Your task to perform on an android device: open app "Truecaller" (install if not already installed) and enter user name: "coauthor@gmail.com" and password: "quadrangle" Image 0: 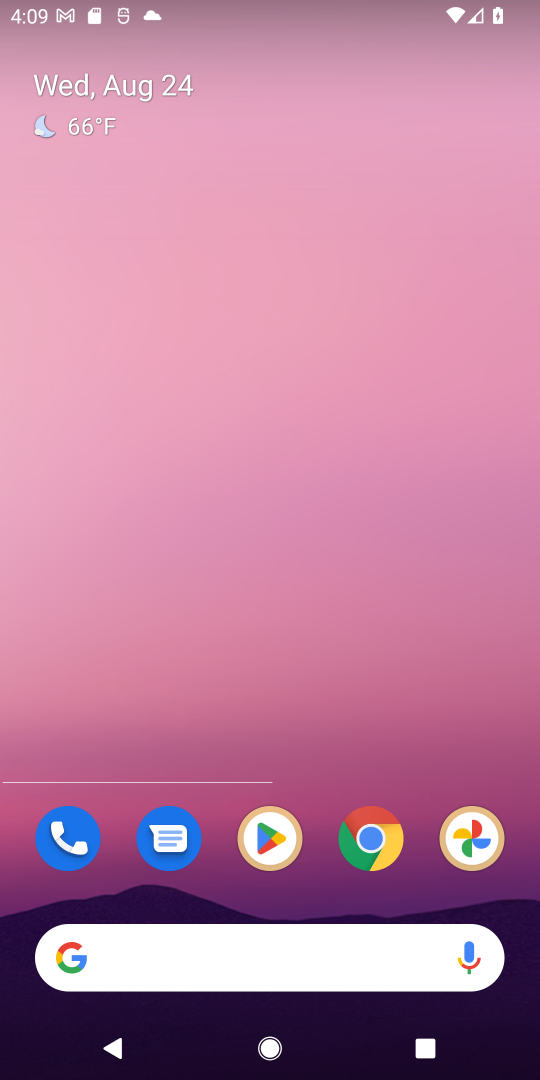
Step 0: press home button
Your task to perform on an android device: open app "Truecaller" (install if not already installed) and enter user name: "coauthor@gmail.com" and password: "quadrangle" Image 1: 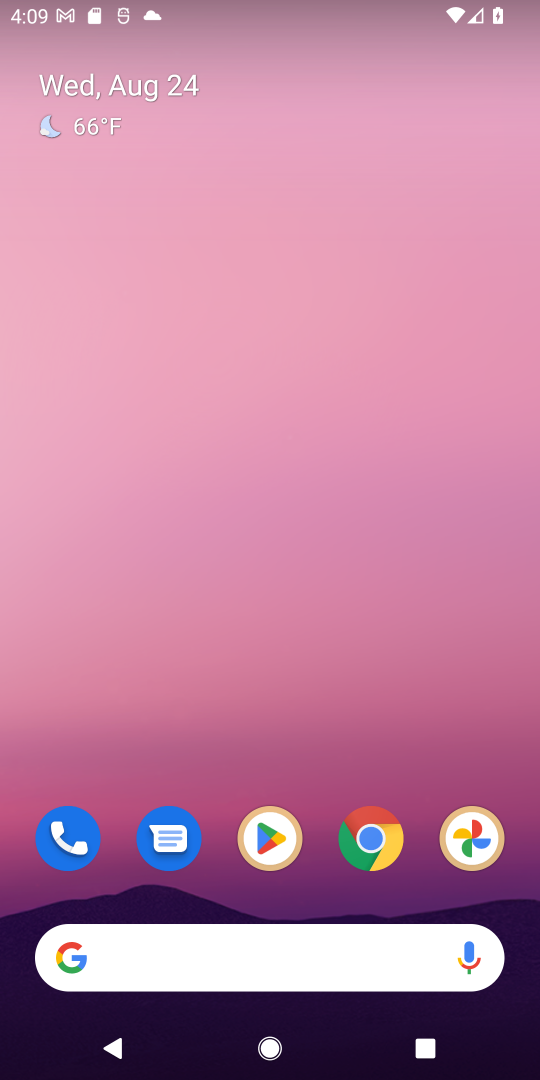
Step 1: click (264, 825)
Your task to perform on an android device: open app "Truecaller" (install if not already installed) and enter user name: "coauthor@gmail.com" and password: "quadrangle" Image 2: 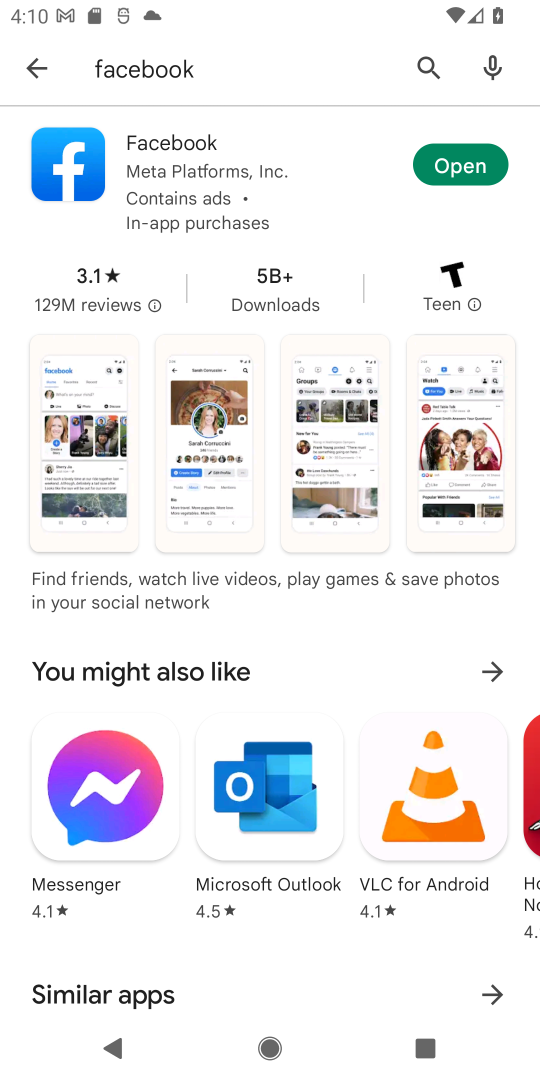
Step 2: click (426, 68)
Your task to perform on an android device: open app "Truecaller" (install if not already installed) and enter user name: "coauthor@gmail.com" and password: "quadrangle" Image 3: 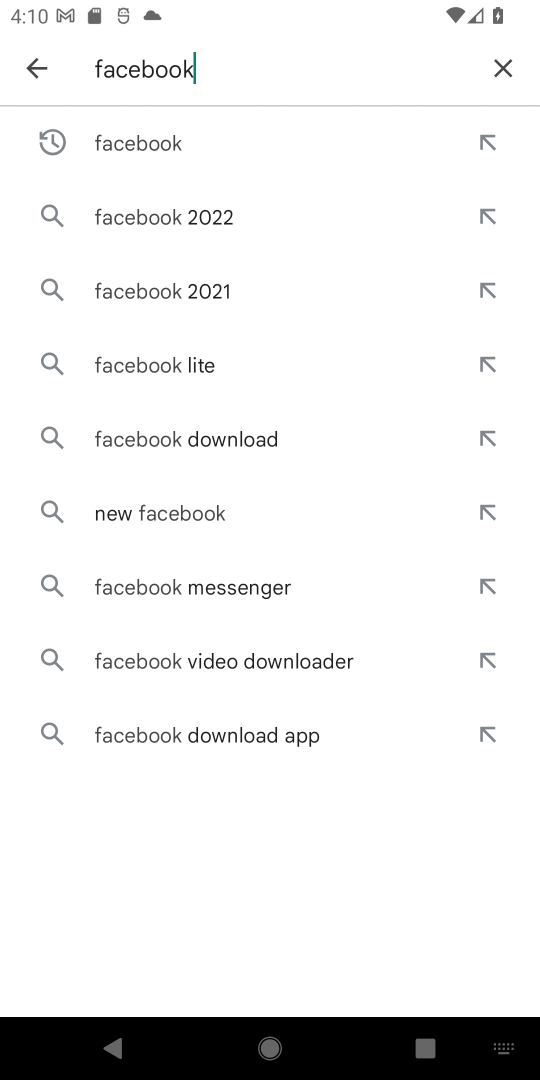
Step 3: click (500, 70)
Your task to perform on an android device: open app "Truecaller" (install if not already installed) and enter user name: "coauthor@gmail.com" and password: "quadrangle" Image 4: 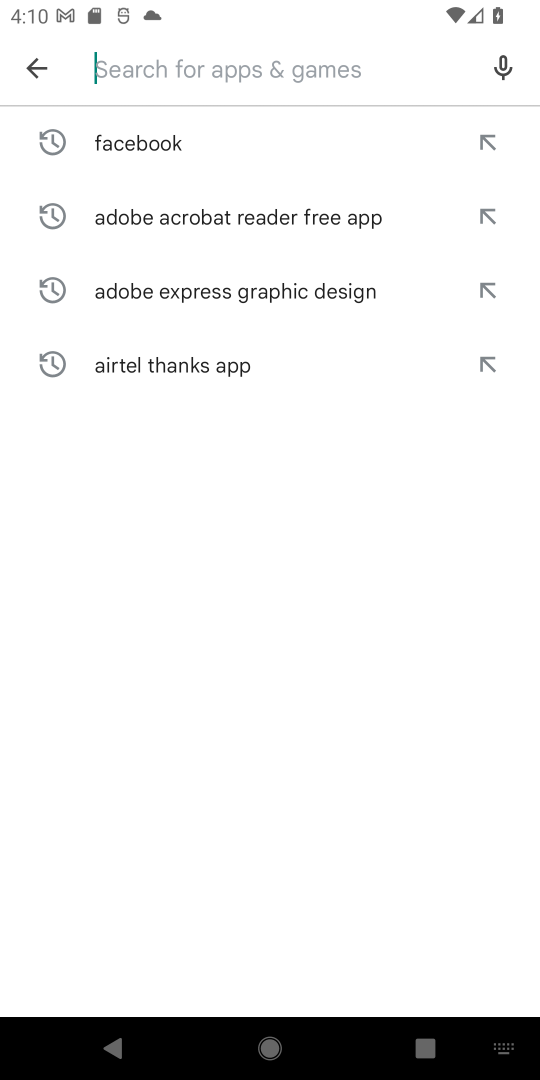
Step 4: type "Truecaller"
Your task to perform on an android device: open app "Truecaller" (install if not already installed) and enter user name: "coauthor@gmail.com" and password: "quadrangle" Image 5: 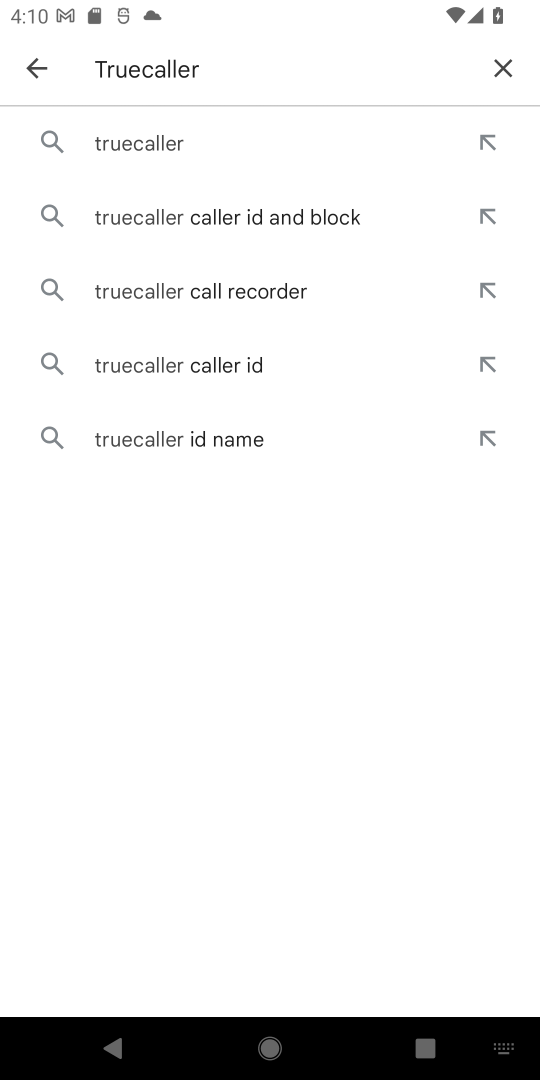
Step 5: click (194, 135)
Your task to perform on an android device: open app "Truecaller" (install if not already installed) and enter user name: "coauthor@gmail.com" and password: "quadrangle" Image 6: 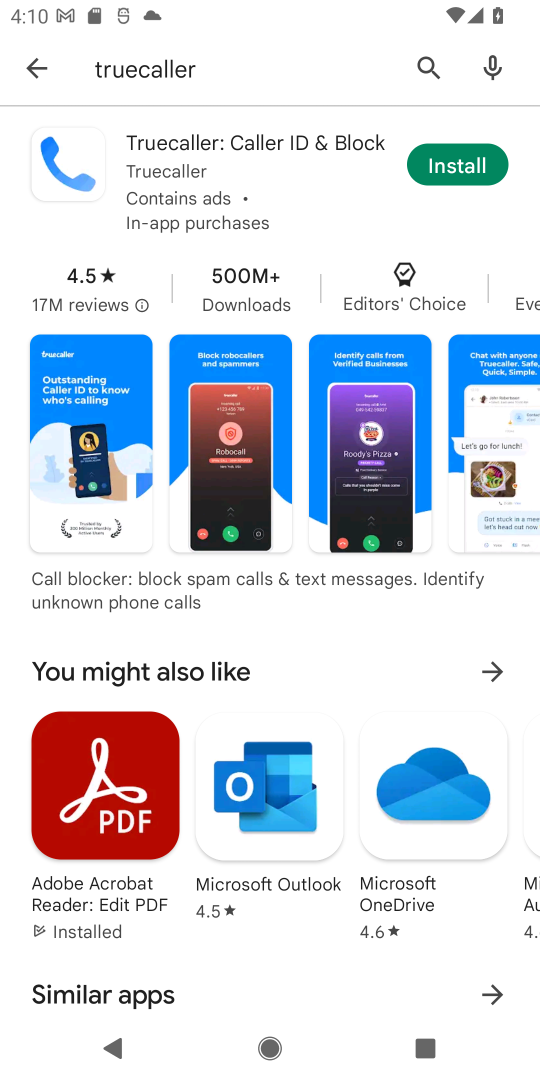
Step 6: click (459, 157)
Your task to perform on an android device: open app "Truecaller" (install if not already installed) and enter user name: "coauthor@gmail.com" and password: "quadrangle" Image 7: 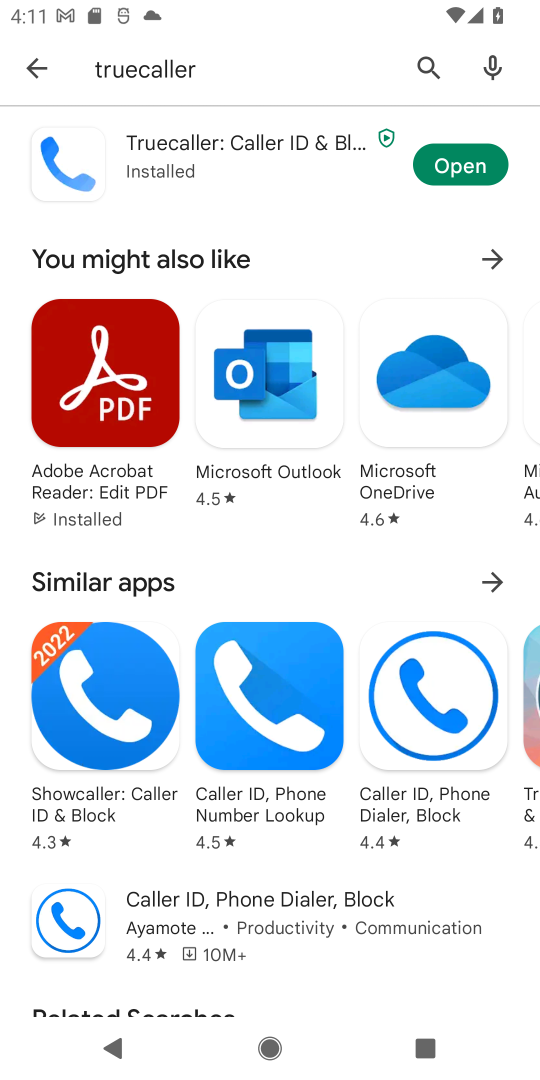
Step 7: click (465, 158)
Your task to perform on an android device: open app "Truecaller" (install if not already installed) and enter user name: "coauthor@gmail.com" and password: "quadrangle" Image 8: 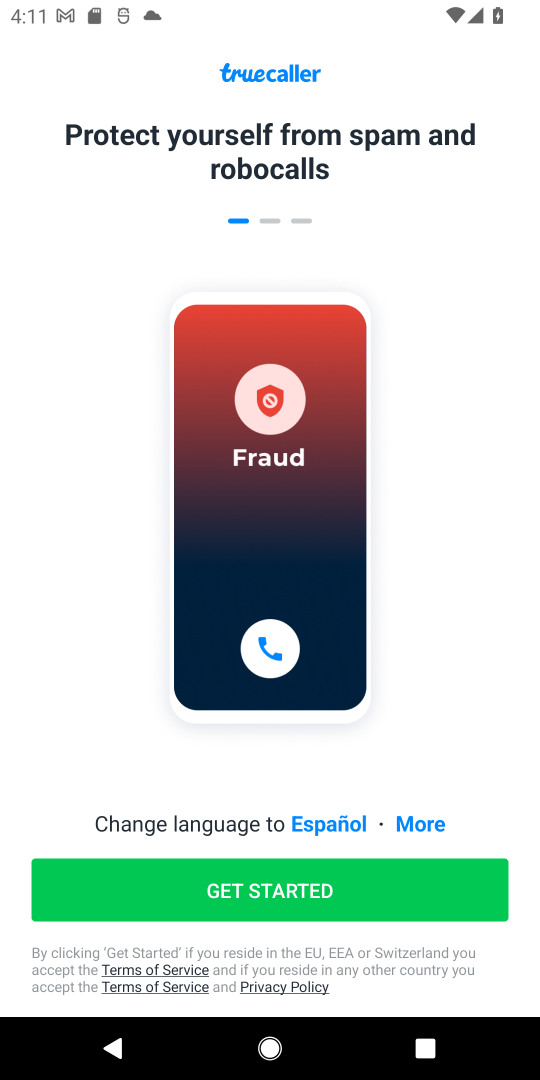
Step 8: click (281, 896)
Your task to perform on an android device: open app "Truecaller" (install if not already installed) and enter user name: "coauthor@gmail.com" and password: "quadrangle" Image 9: 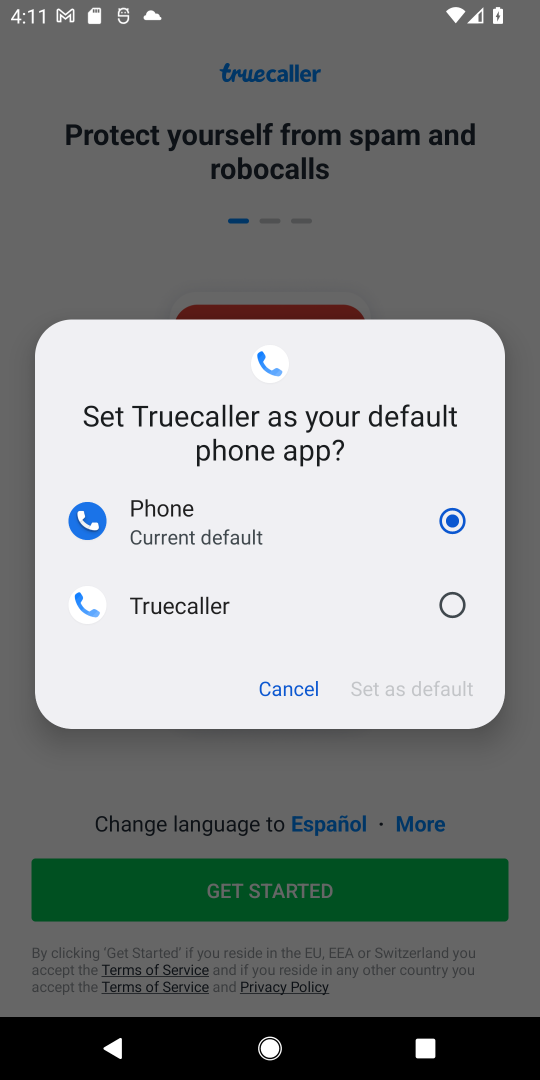
Step 9: click (440, 602)
Your task to perform on an android device: open app "Truecaller" (install if not already installed) and enter user name: "coauthor@gmail.com" and password: "quadrangle" Image 10: 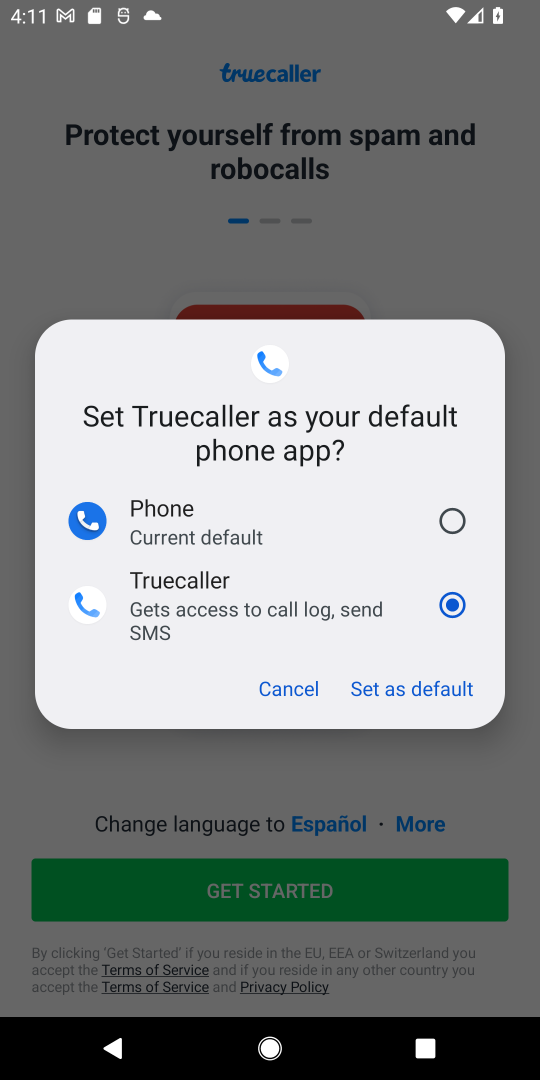
Step 10: click (430, 687)
Your task to perform on an android device: open app "Truecaller" (install if not already installed) and enter user name: "coauthor@gmail.com" and password: "quadrangle" Image 11: 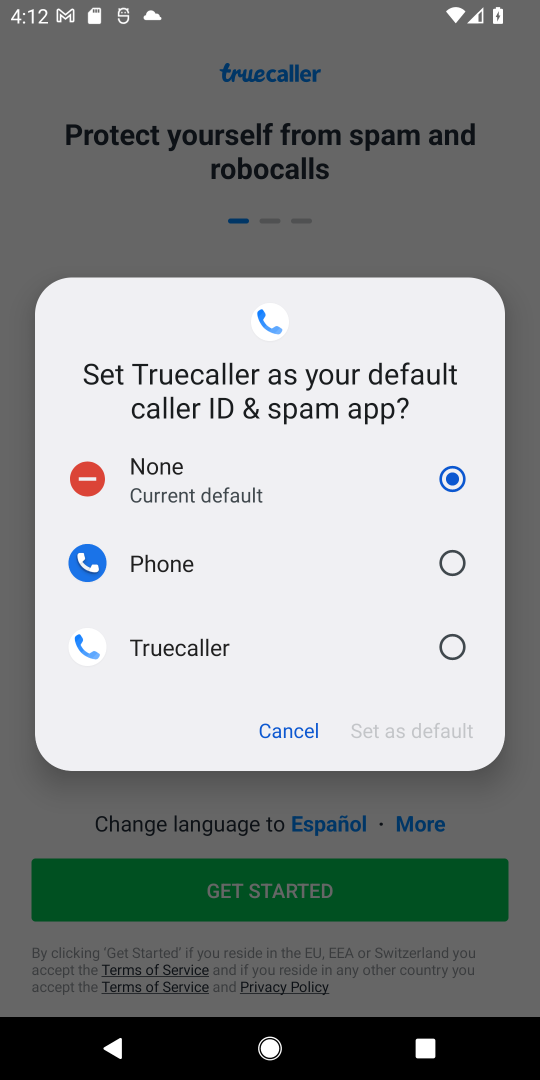
Step 11: click (449, 563)
Your task to perform on an android device: open app "Truecaller" (install if not already installed) and enter user name: "coauthor@gmail.com" and password: "quadrangle" Image 12: 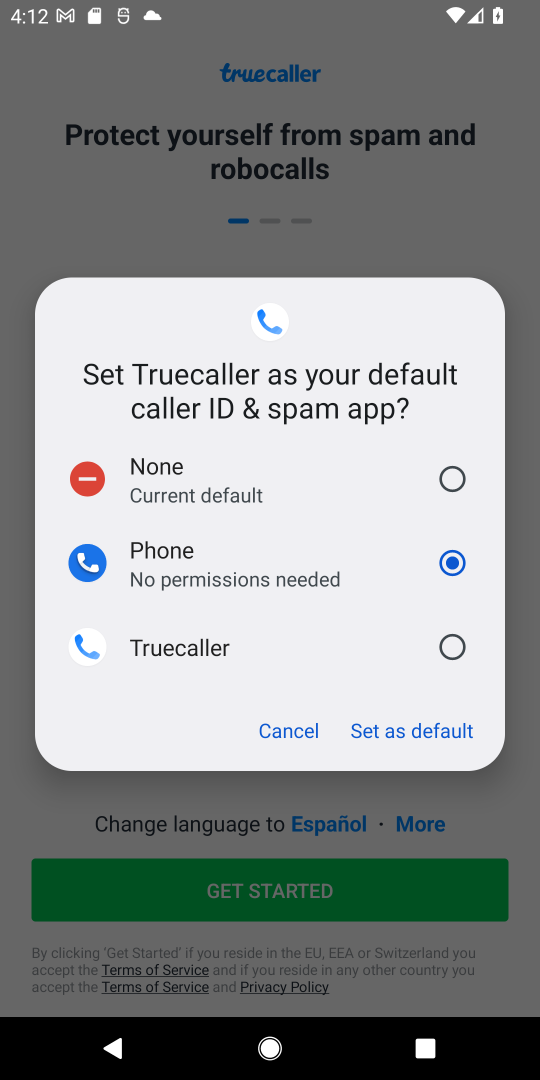
Step 12: click (442, 725)
Your task to perform on an android device: open app "Truecaller" (install if not already installed) and enter user name: "coauthor@gmail.com" and password: "quadrangle" Image 13: 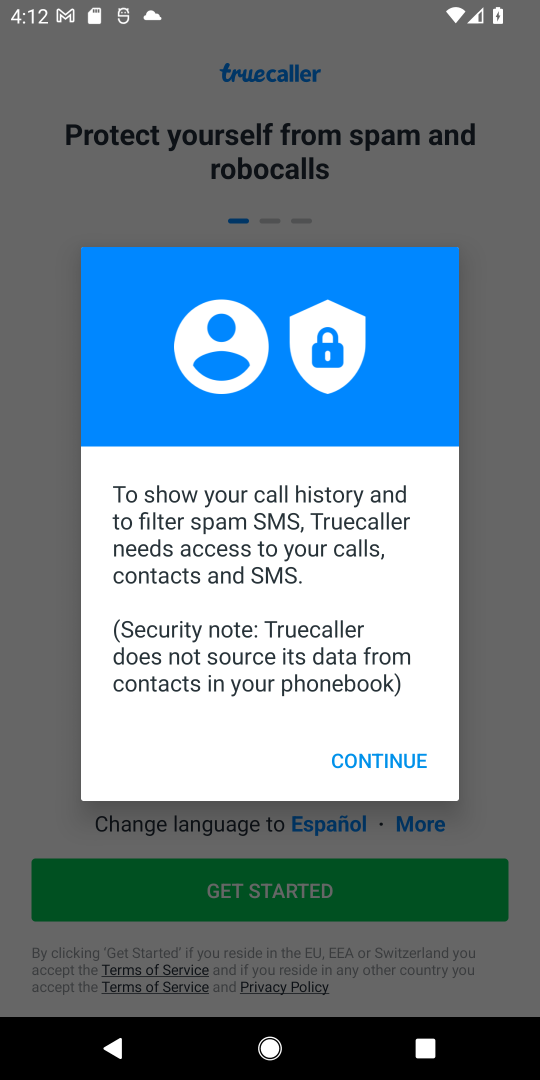
Step 13: click (380, 759)
Your task to perform on an android device: open app "Truecaller" (install if not already installed) and enter user name: "coauthor@gmail.com" and password: "quadrangle" Image 14: 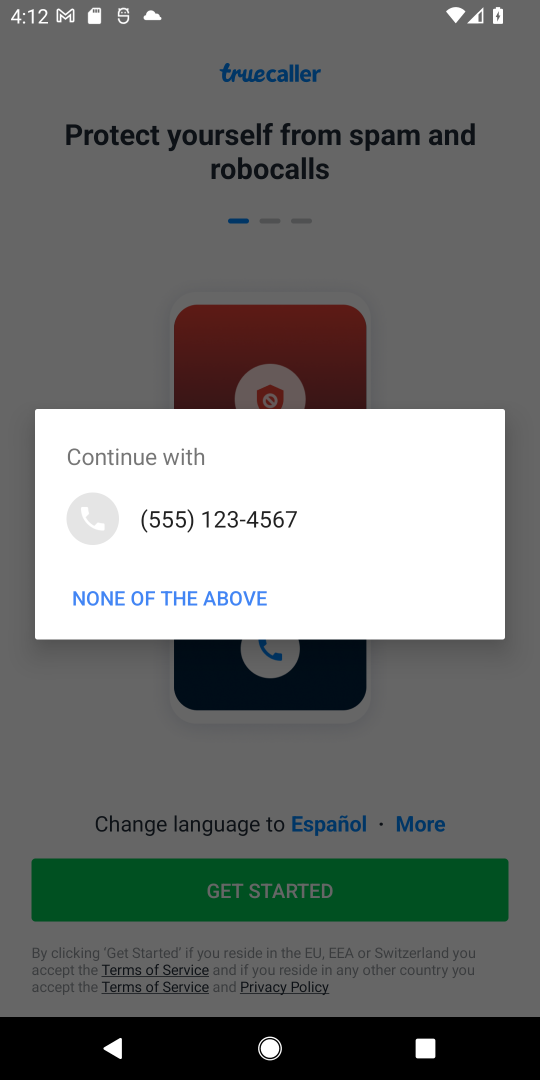
Step 14: click (228, 591)
Your task to perform on an android device: open app "Truecaller" (install if not already installed) and enter user name: "coauthor@gmail.com" and password: "quadrangle" Image 15: 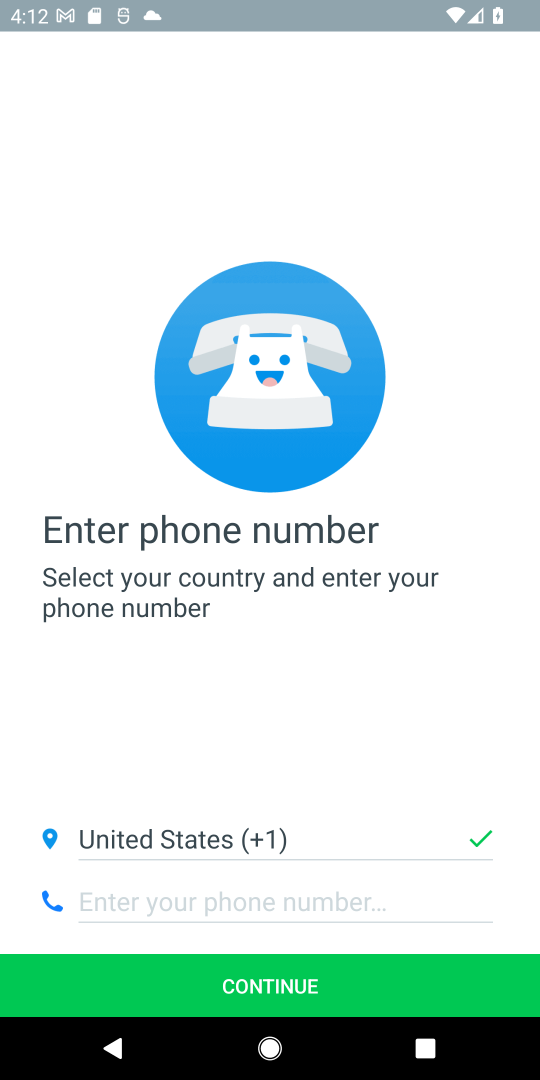
Step 15: task complete